Your task to perform on an android device: Go to location settings Image 0: 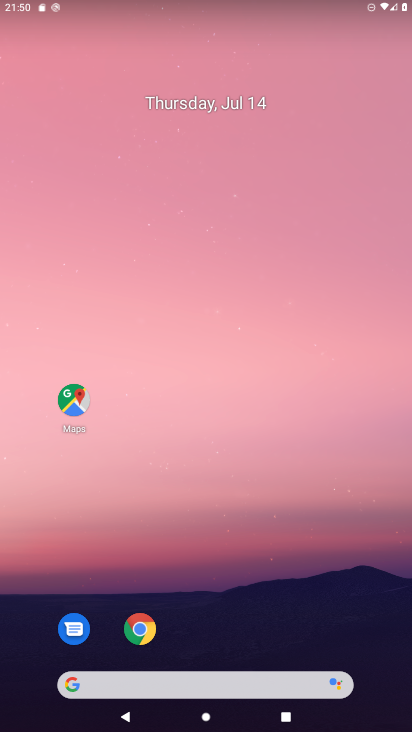
Step 0: drag from (218, 642) to (268, 170)
Your task to perform on an android device: Go to location settings Image 1: 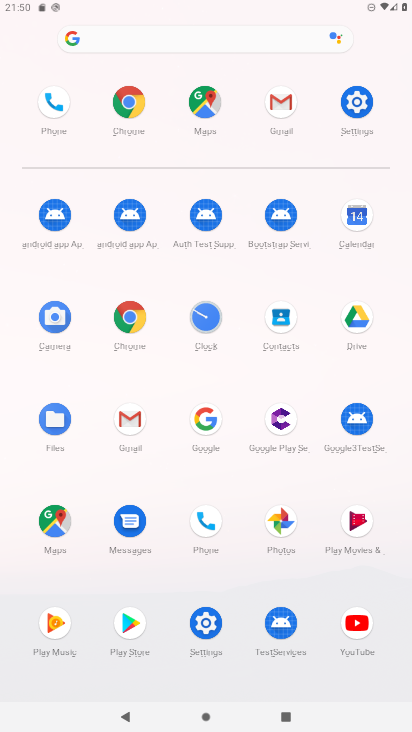
Step 1: click (339, 99)
Your task to perform on an android device: Go to location settings Image 2: 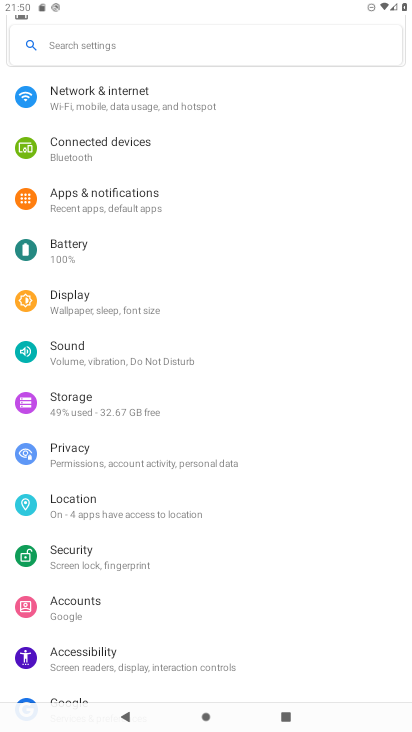
Step 2: click (92, 493)
Your task to perform on an android device: Go to location settings Image 3: 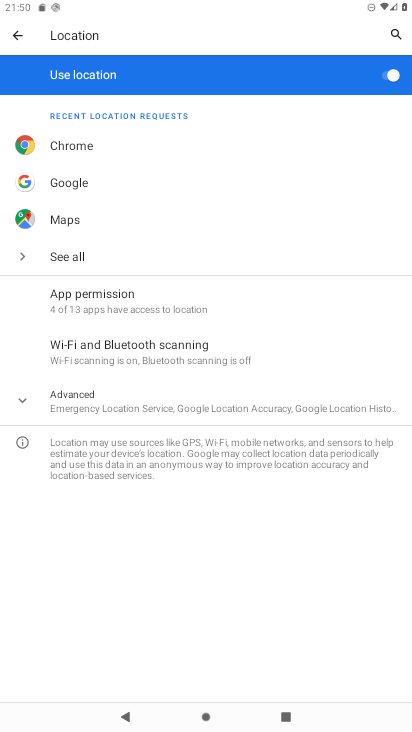
Step 3: task complete